Your task to perform on an android device: toggle location history Image 0: 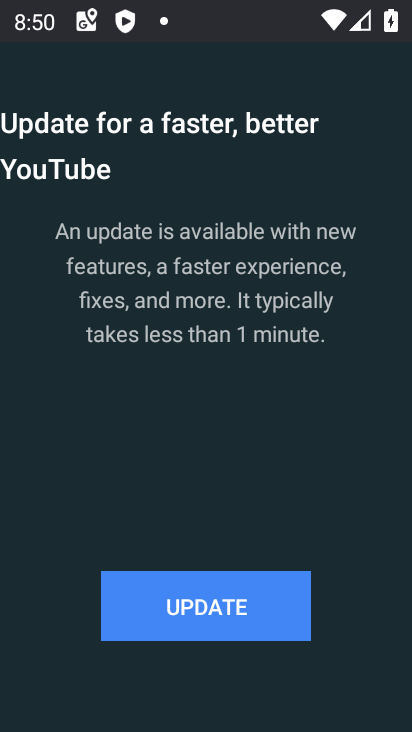
Step 0: press home button
Your task to perform on an android device: toggle location history Image 1: 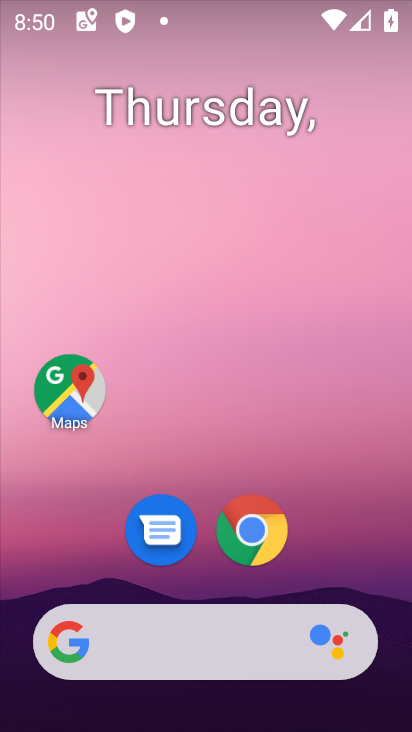
Step 1: drag from (201, 614) to (258, 212)
Your task to perform on an android device: toggle location history Image 2: 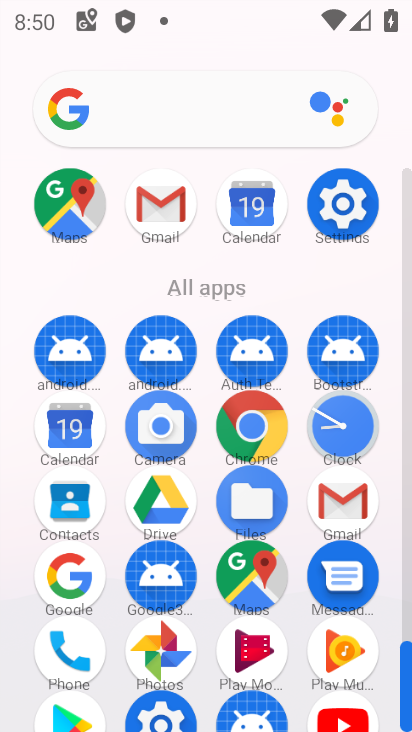
Step 2: click (372, 222)
Your task to perform on an android device: toggle location history Image 3: 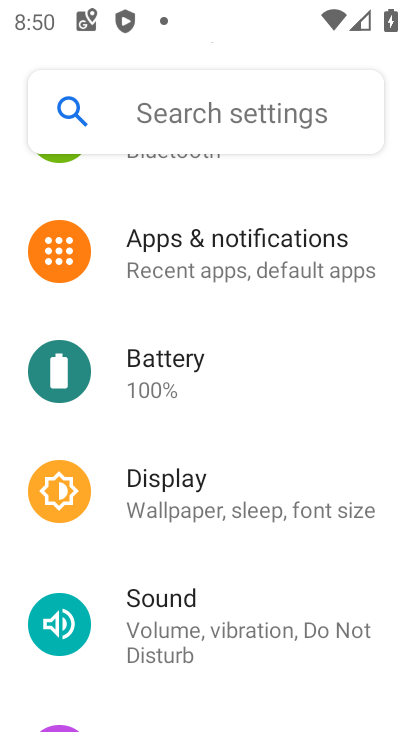
Step 3: drag from (287, 648) to (284, 314)
Your task to perform on an android device: toggle location history Image 4: 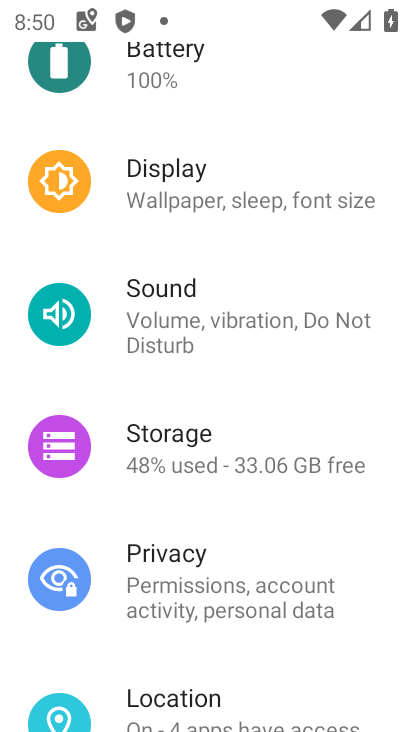
Step 4: drag from (265, 643) to (219, 357)
Your task to perform on an android device: toggle location history Image 5: 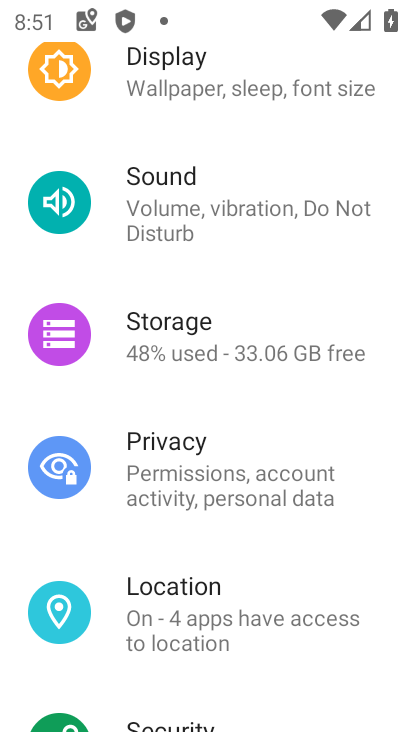
Step 5: click (267, 624)
Your task to perform on an android device: toggle location history Image 6: 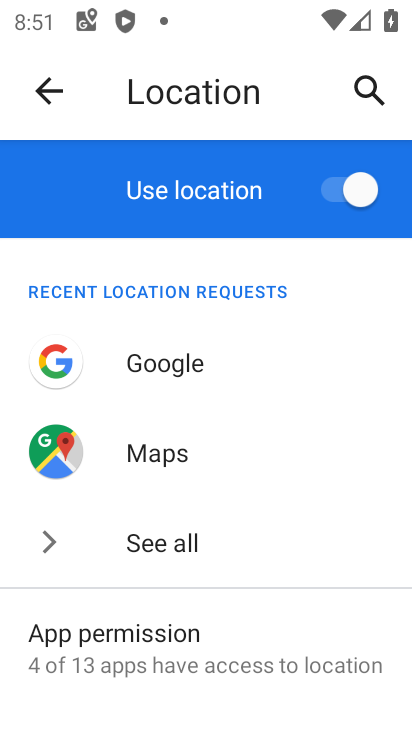
Step 6: drag from (267, 624) to (344, 155)
Your task to perform on an android device: toggle location history Image 7: 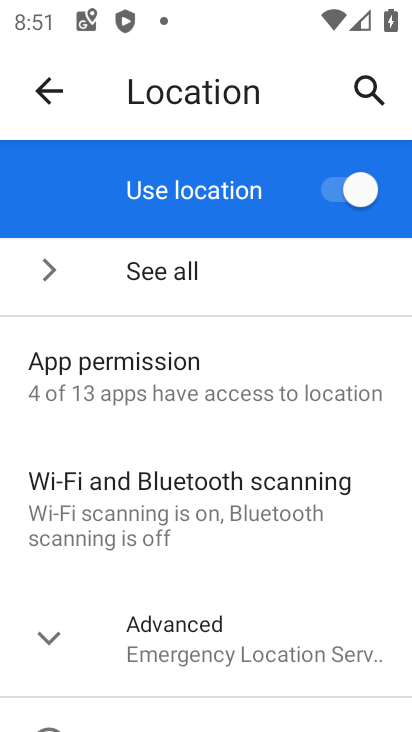
Step 7: click (161, 625)
Your task to perform on an android device: toggle location history Image 8: 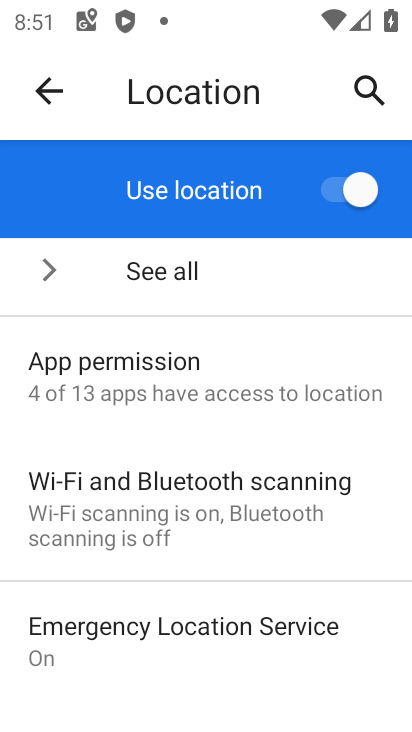
Step 8: drag from (161, 625) to (188, 453)
Your task to perform on an android device: toggle location history Image 9: 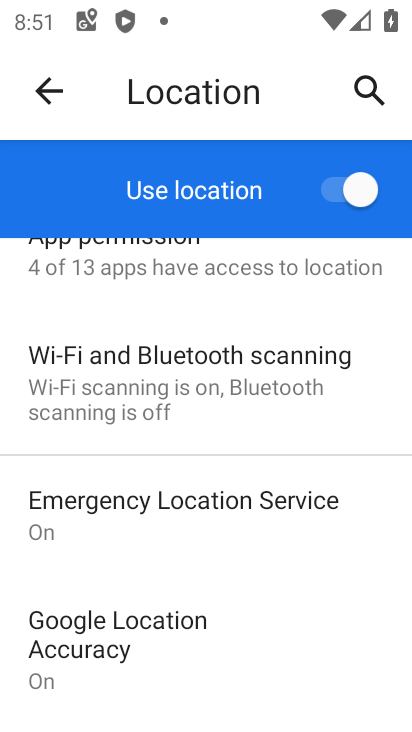
Step 9: drag from (217, 636) to (237, 409)
Your task to perform on an android device: toggle location history Image 10: 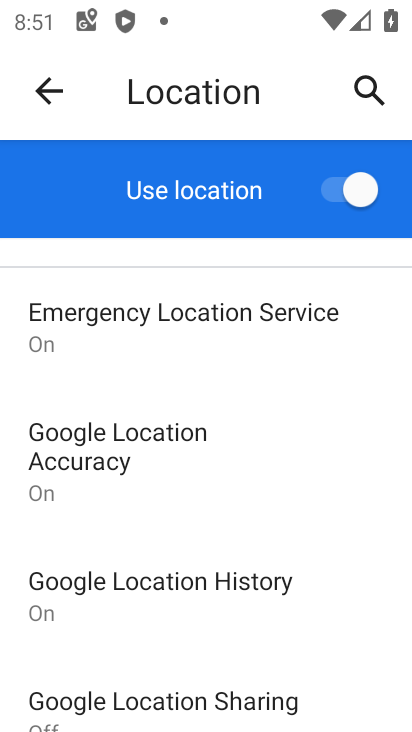
Step 10: click (206, 616)
Your task to perform on an android device: toggle location history Image 11: 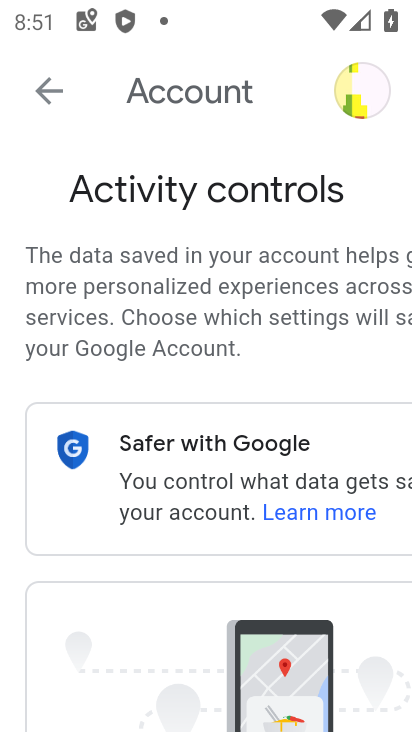
Step 11: drag from (253, 617) to (195, 518)
Your task to perform on an android device: toggle location history Image 12: 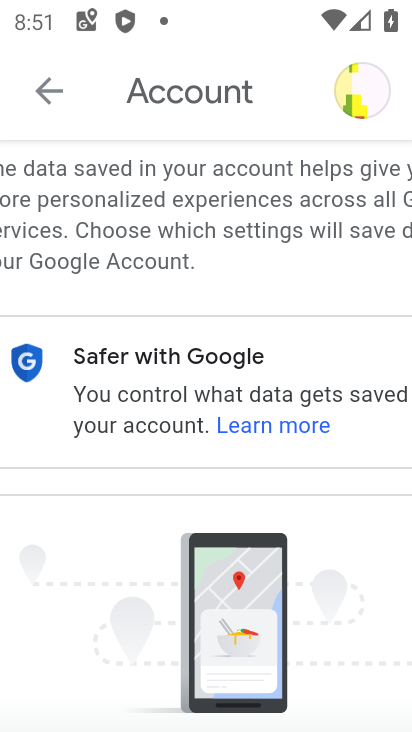
Step 12: drag from (365, 565) to (243, 243)
Your task to perform on an android device: toggle location history Image 13: 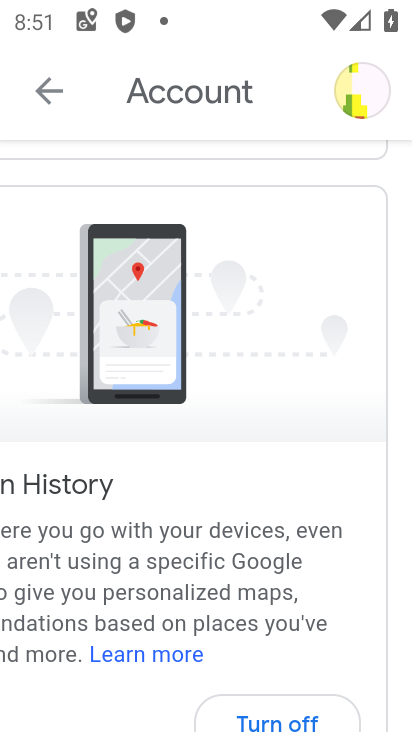
Step 13: drag from (300, 538) to (293, 345)
Your task to perform on an android device: toggle location history Image 14: 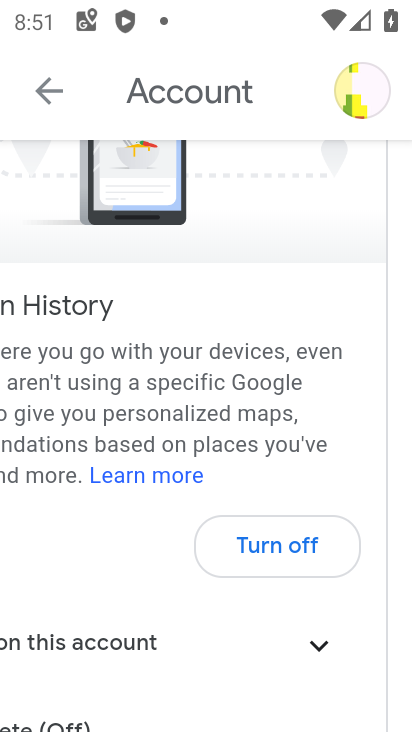
Step 14: click (297, 548)
Your task to perform on an android device: toggle location history Image 15: 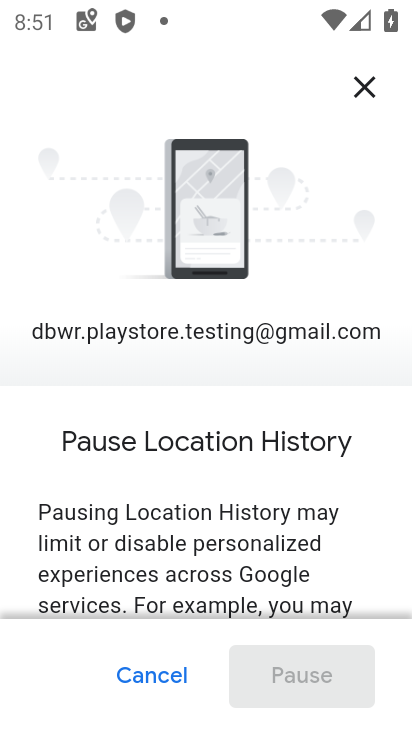
Step 15: drag from (307, 568) to (261, 153)
Your task to perform on an android device: toggle location history Image 16: 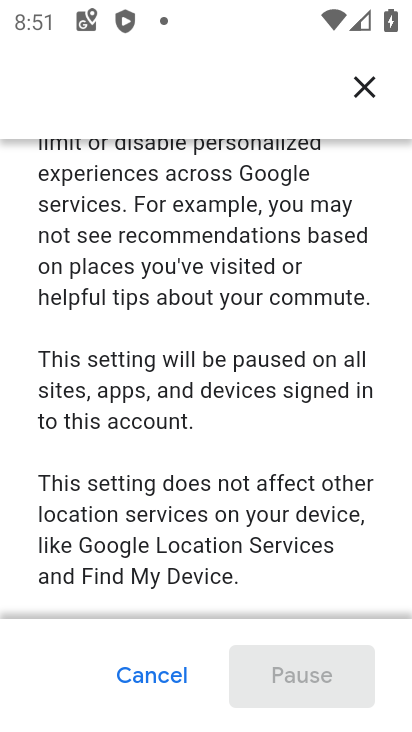
Step 16: drag from (280, 419) to (259, 118)
Your task to perform on an android device: toggle location history Image 17: 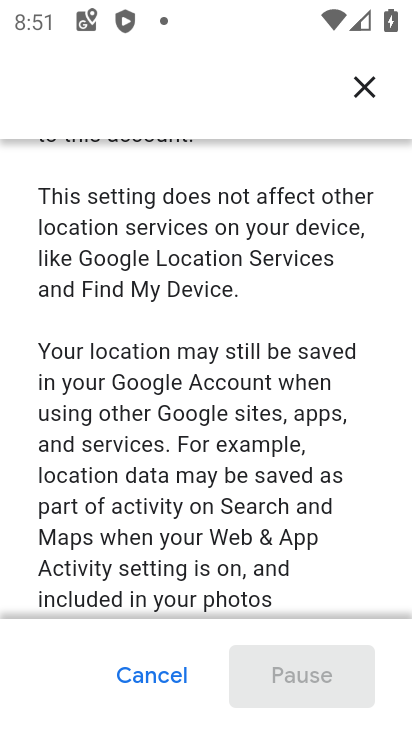
Step 17: drag from (286, 454) to (258, 160)
Your task to perform on an android device: toggle location history Image 18: 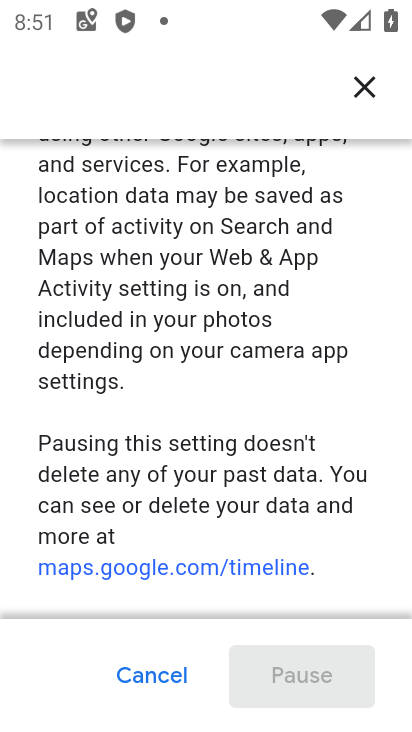
Step 18: drag from (299, 490) to (285, 58)
Your task to perform on an android device: toggle location history Image 19: 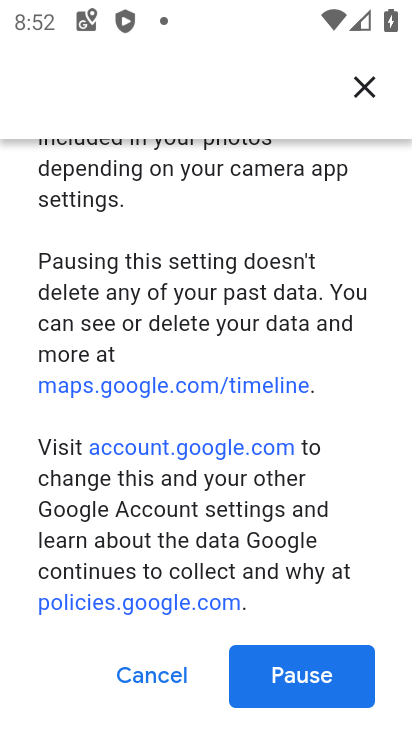
Step 19: click (315, 690)
Your task to perform on an android device: toggle location history Image 20: 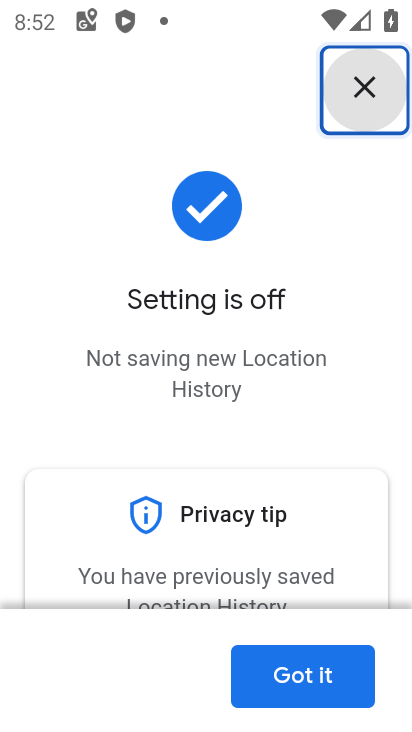
Step 20: click (327, 677)
Your task to perform on an android device: toggle location history Image 21: 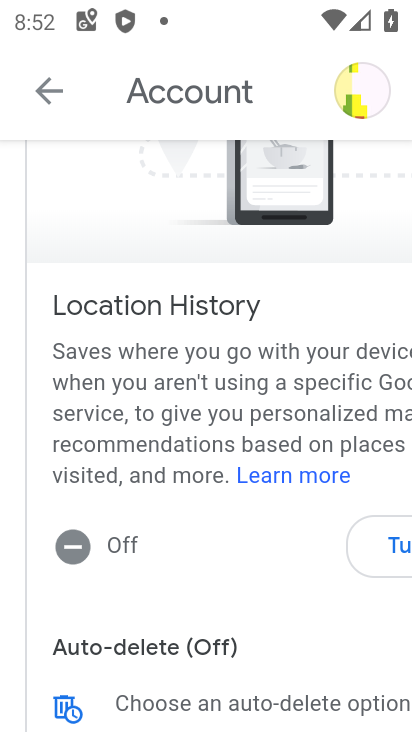
Step 21: task complete